Your task to perform on an android device: Toggle the flashlight Image 0: 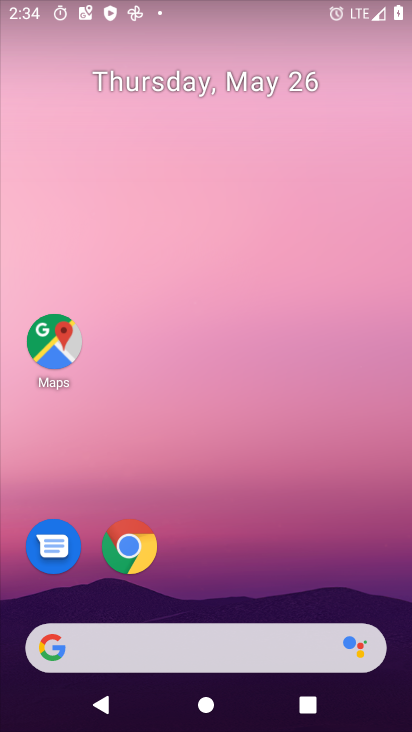
Step 0: drag from (257, 554) to (298, 75)
Your task to perform on an android device: Toggle the flashlight Image 1: 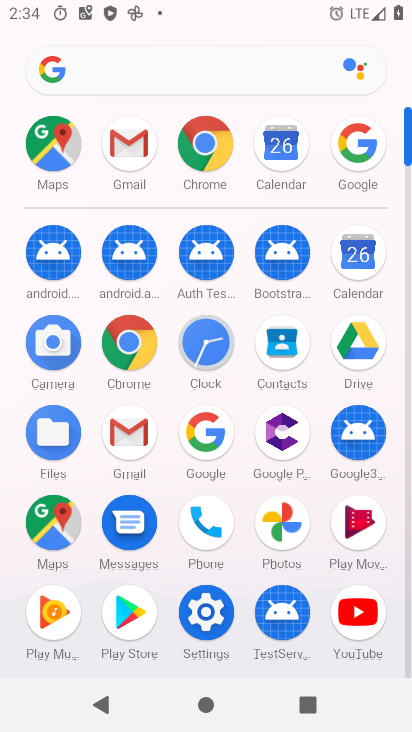
Step 1: click (204, 613)
Your task to perform on an android device: Toggle the flashlight Image 2: 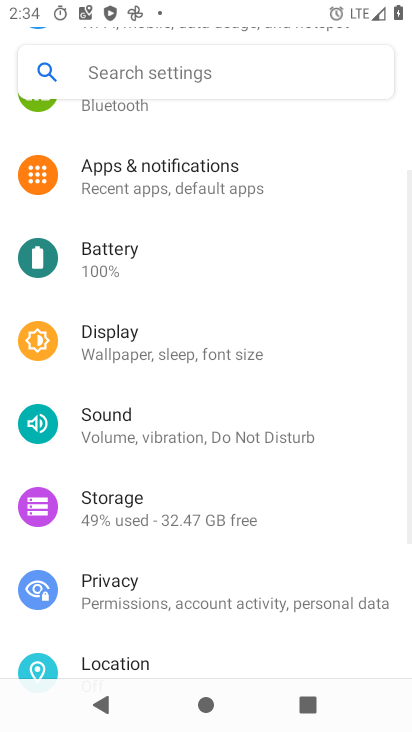
Step 2: click (215, 80)
Your task to perform on an android device: Toggle the flashlight Image 3: 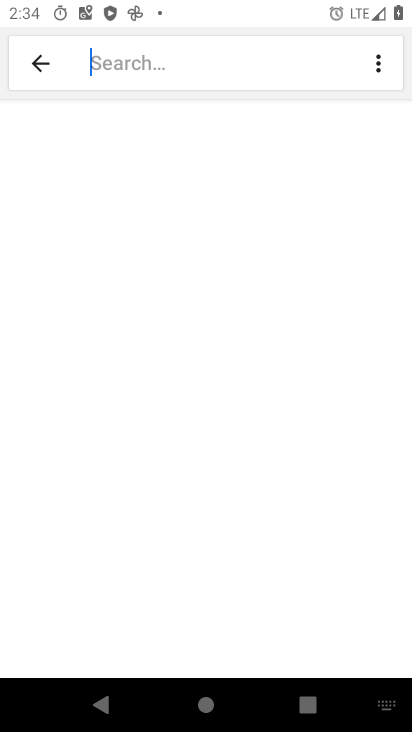
Step 3: type "flash"
Your task to perform on an android device: Toggle the flashlight Image 4: 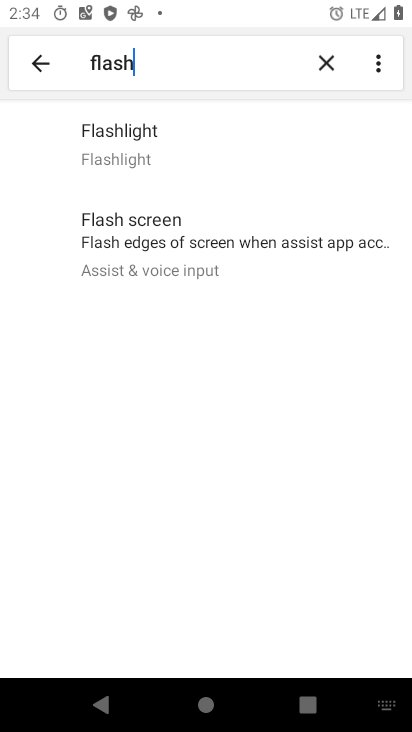
Step 4: task complete